Your task to perform on an android device: Add "asus zenbook" to the cart on target, then select checkout. Image 0: 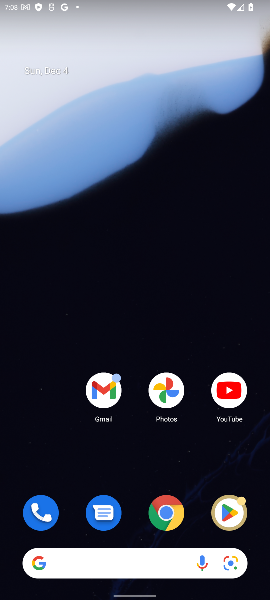
Step 0: click (167, 500)
Your task to perform on an android device: Add "asus zenbook" to the cart on target, then select checkout. Image 1: 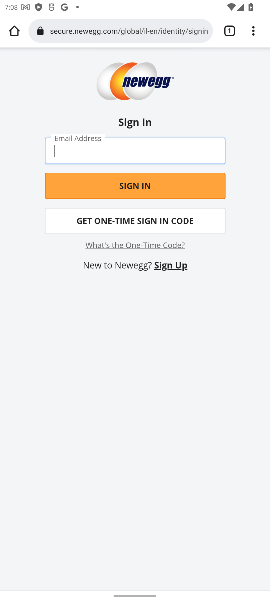
Step 1: click (229, 29)
Your task to perform on an android device: Add "asus zenbook" to the cart on target, then select checkout. Image 2: 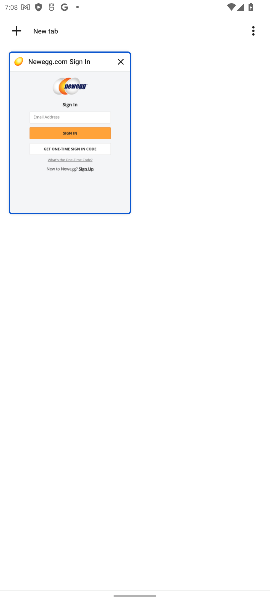
Step 2: click (16, 36)
Your task to perform on an android device: Add "asus zenbook" to the cart on target, then select checkout. Image 3: 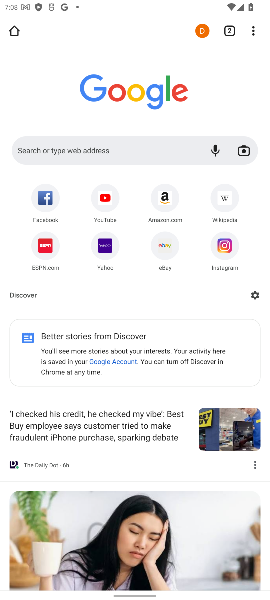
Step 3: click (144, 148)
Your task to perform on an android device: Add "asus zenbook" to the cart on target, then select checkout. Image 4: 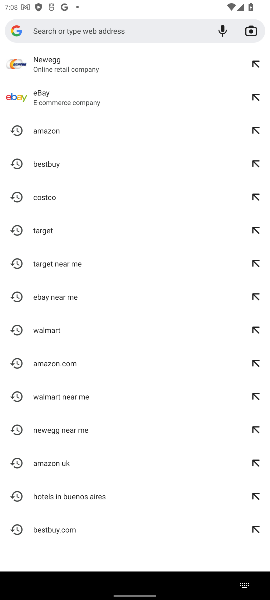
Step 4: click (48, 226)
Your task to perform on an android device: Add "asus zenbook" to the cart on target, then select checkout. Image 5: 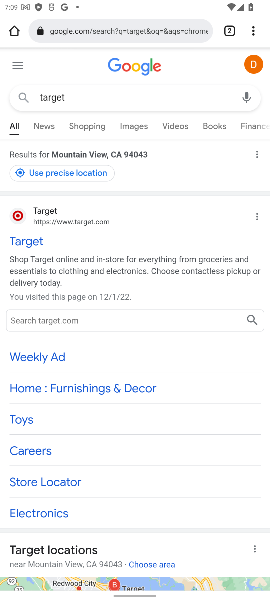
Step 5: click (56, 321)
Your task to perform on an android device: Add "asus zenbook" to the cart on target, then select checkout. Image 6: 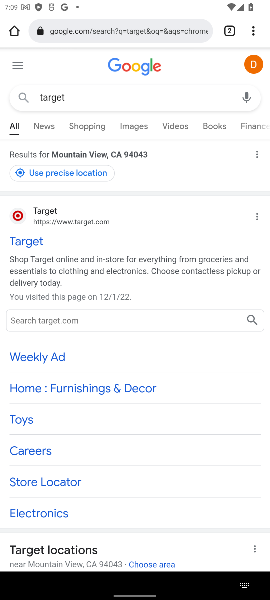
Step 6: type "asus zenbook"
Your task to perform on an android device: Add "asus zenbook" to the cart on target, then select checkout. Image 7: 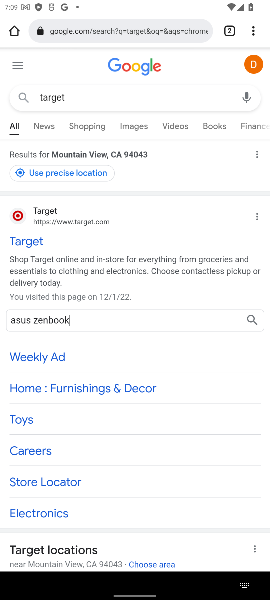
Step 7: click (253, 318)
Your task to perform on an android device: Add "asus zenbook" to the cart on target, then select checkout. Image 8: 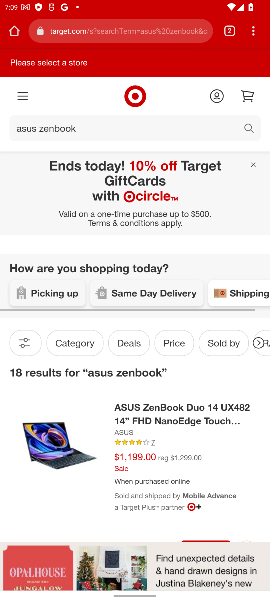
Step 8: click (161, 418)
Your task to perform on an android device: Add "asus zenbook" to the cart on target, then select checkout. Image 9: 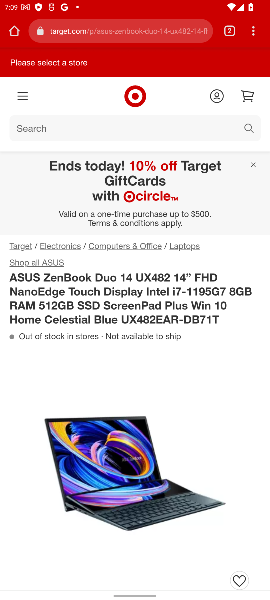
Step 9: drag from (165, 541) to (174, 93)
Your task to perform on an android device: Add "asus zenbook" to the cart on target, then select checkout. Image 10: 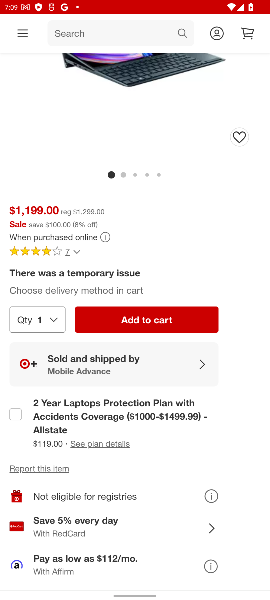
Step 10: click (156, 324)
Your task to perform on an android device: Add "asus zenbook" to the cart on target, then select checkout. Image 11: 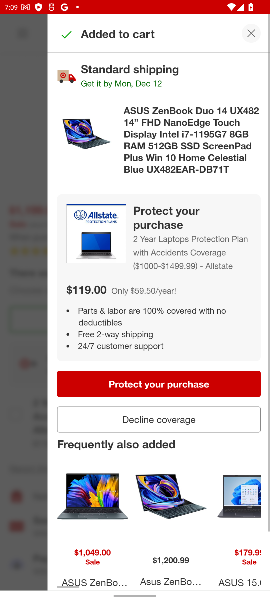
Step 11: click (163, 419)
Your task to perform on an android device: Add "asus zenbook" to the cart on target, then select checkout. Image 12: 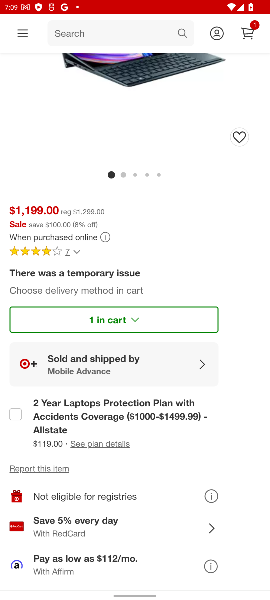
Step 12: click (254, 25)
Your task to perform on an android device: Add "asus zenbook" to the cart on target, then select checkout. Image 13: 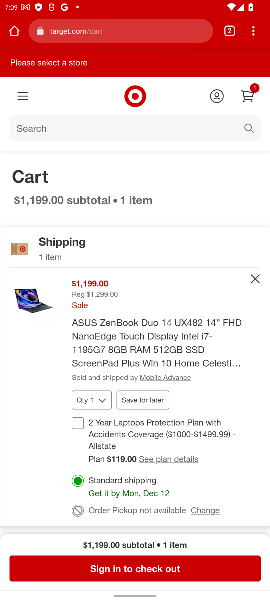
Step 13: click (143, 572)
Your task to perform on an android device: Add "asus zenbook" to the cart on target, then select checkout. Image 14: 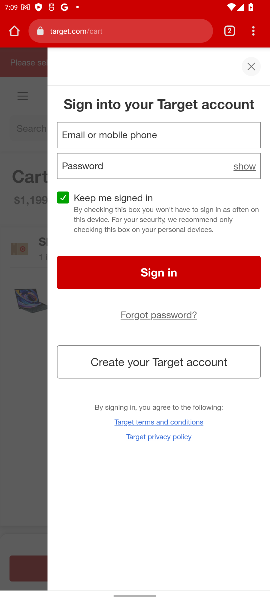
Step 14: task complete